Your task to perform on an android device: Check the weather Image 0: 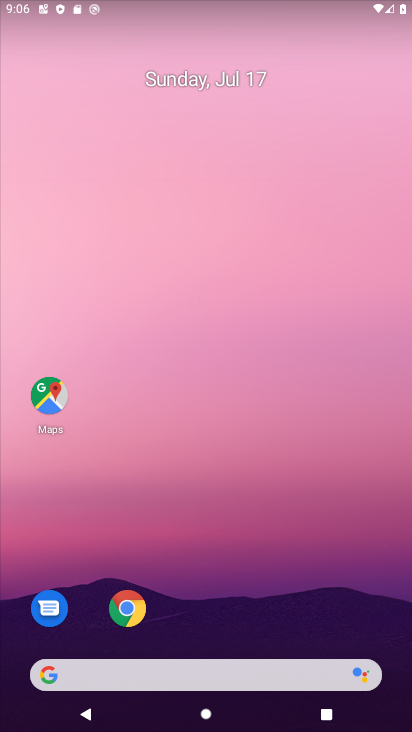
Step 0: drag from (209, 667) to (211, 225)
Your task to perform on an android device: Check the weather Image 1: 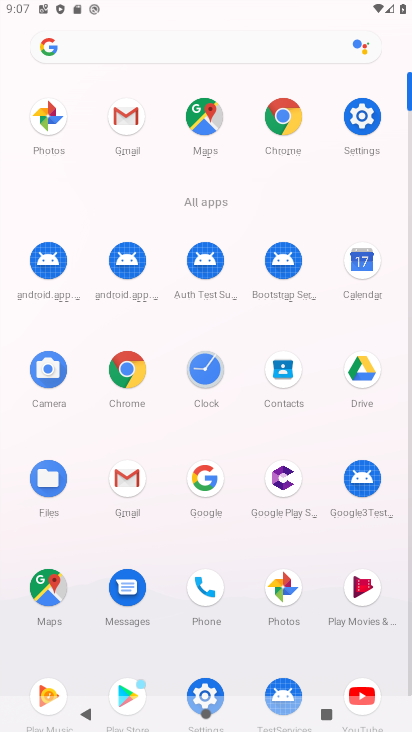
Step 1: click (203, 474)
Your task to perform on an android device: Check the weather Image 2: 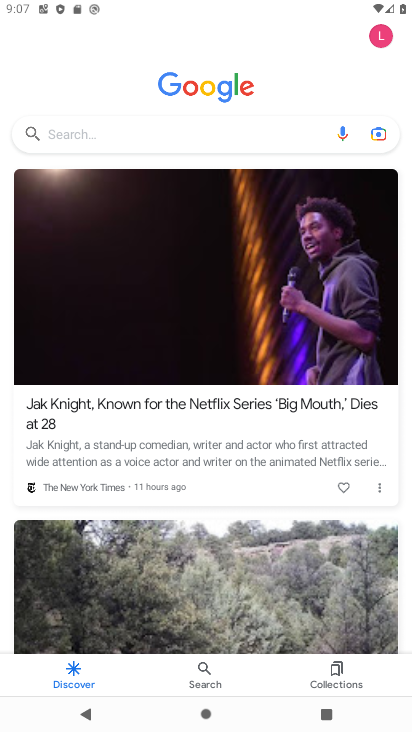
Step 2: click (237, 130)
Your task to perform on an android device: Check the weather Image 3: 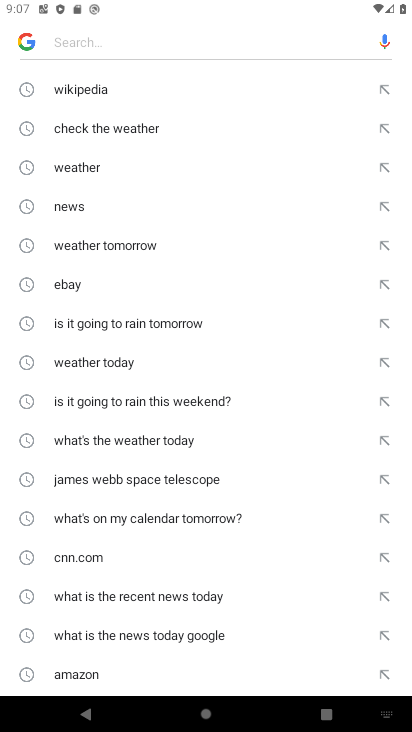
Step 3: click (81, 166)
Your task to perform on an android device: Check the weather Image 4: 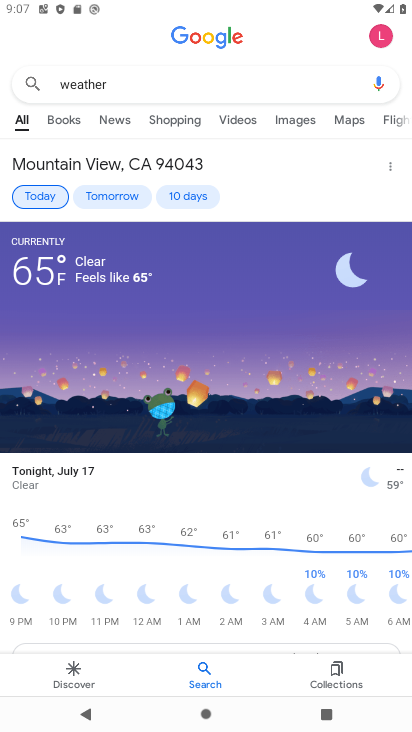
Step 4: task complete